Your task to perform on an android device: turn on improve location accuracy Image 0: 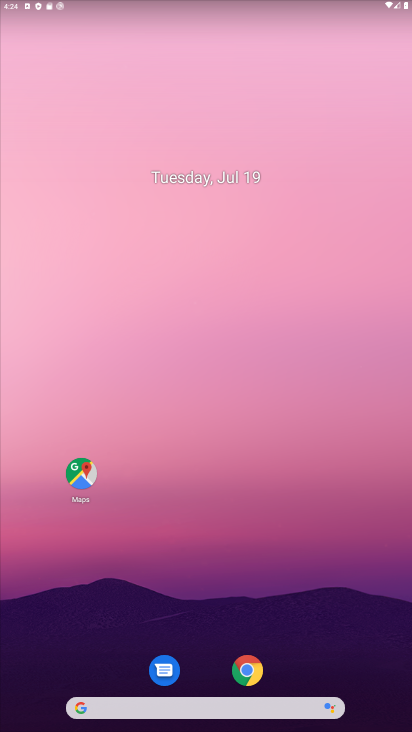
Step 0: drag from (252, 707) to (375, 135)
Your task to perform on an android device: turn on improve location accuracy Image 1: 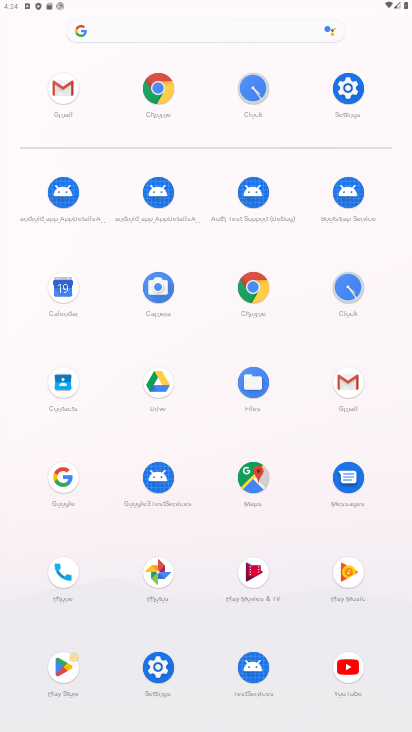
Step 1: click (357, 80)
Your task to perform on an android device: turn on improve location accuracy Image 2: 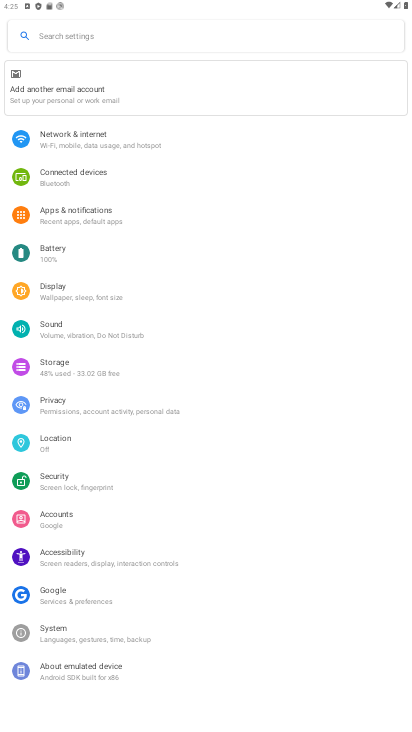
Step 2: click (62, 443)
Your task to perform on an android device: turn on improve location accuracy Image 3: 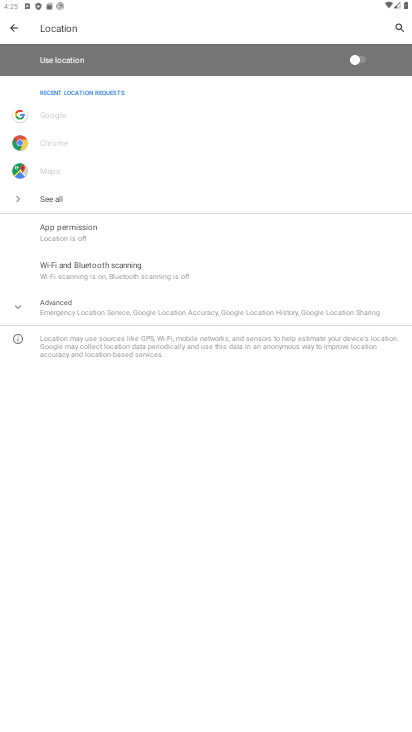
Step 3: click (87, 312)
Your task to perform on an android device: turn on improve location accuracy Image 4: 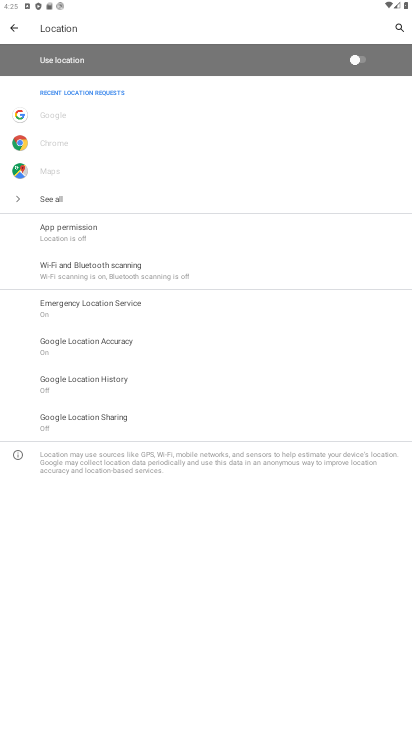
Step 4: click (119, 352)
Your task to perform on an android device: turn on improve location accuracy Image 5: 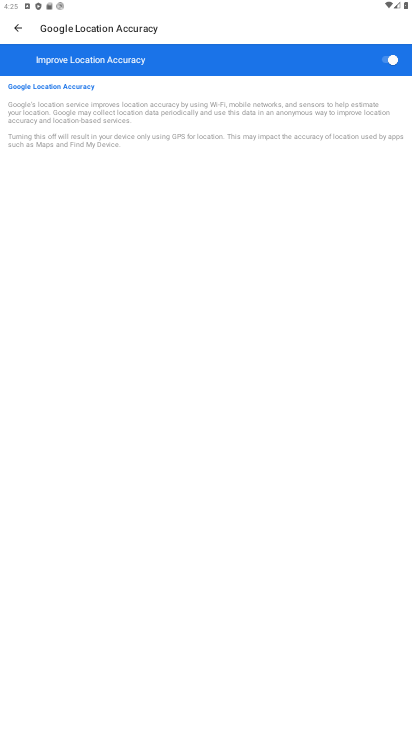
Step 5: task complete